Your task to perform on an android device: Check the weather Image 0: 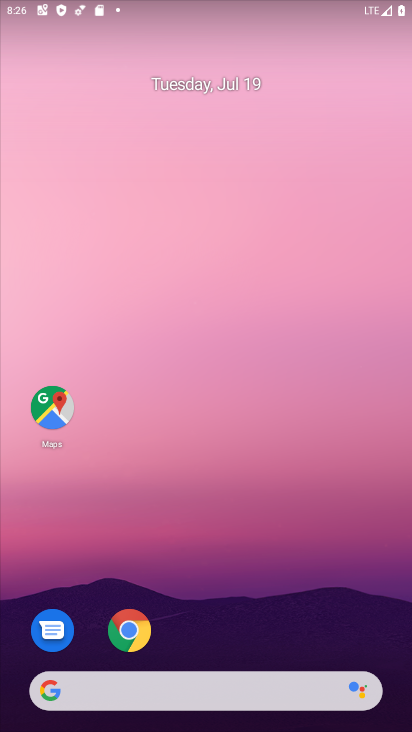
Step 0: drag from (236, 700) to (216, 268)
Your task to perform on an android device: Check the weather Image 1: 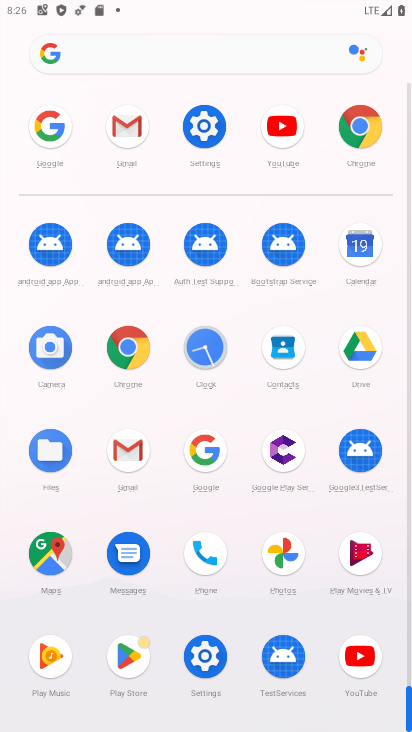
Step 1: drag from (222, 544) to (221, 405)
Your task to perform on an android device: Check the weather Image 2: 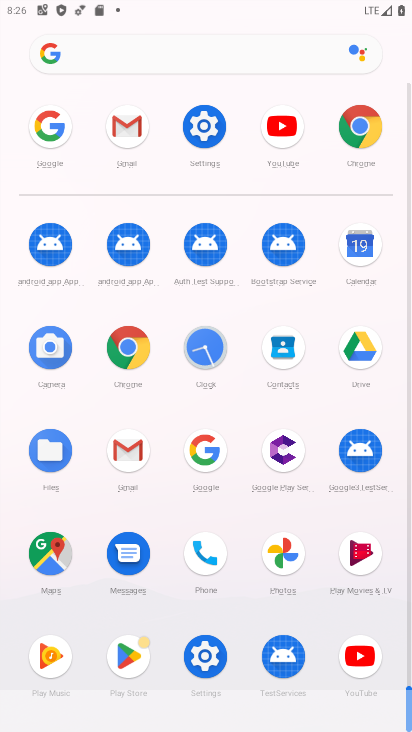
Step 2: click (208, 465)
Your task to perform on an android device: Check the weather Image 3: 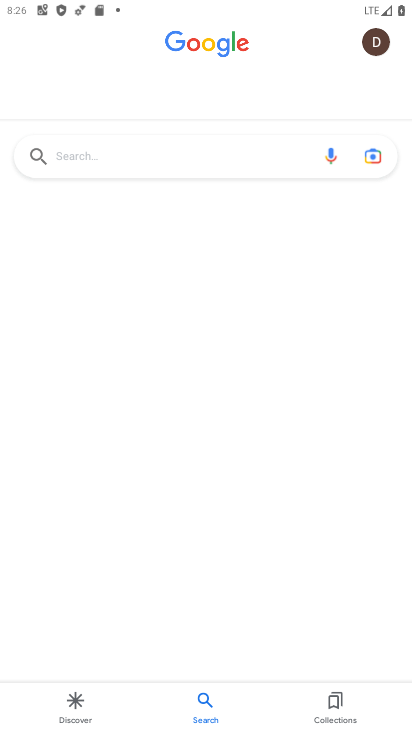
Step 3: click (175, 162)
Your task to perform on an android device: Check the weather Image 4: 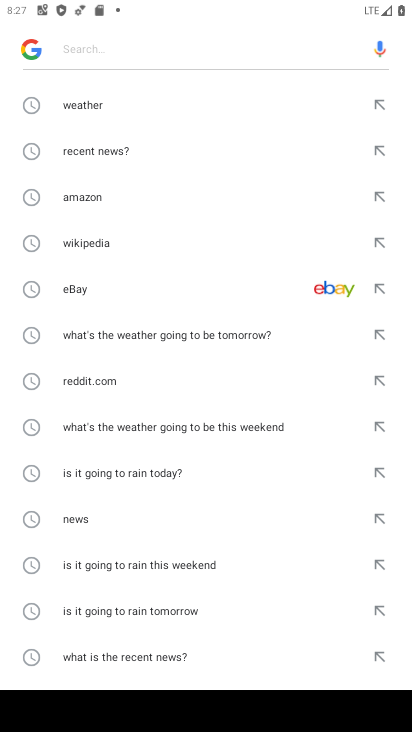
Step 4: click (129, 109)
Your task to perform on an android device: Check the weather Image 5: 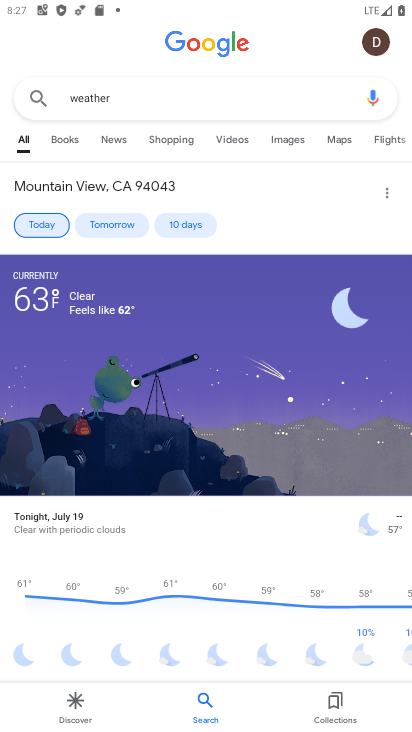
Step 5: task complete